Your task to perform on an android device: toggle wifi Image 0: 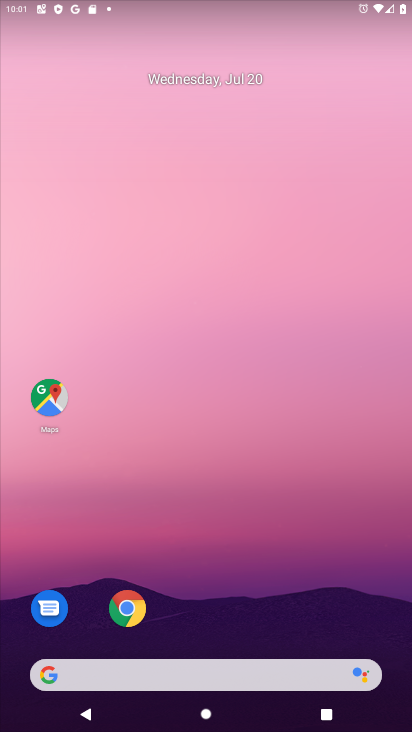
Step 0: drag from (181, 1) to (175, 629)
Your task to perform on an android device: toggle wifi Image 1: 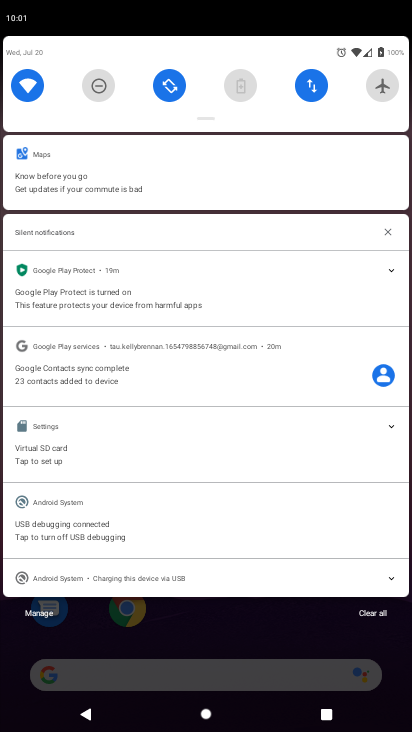
Step 1: click (22, 86)
Your task to perform on an android device: toggle wifi Image 2: 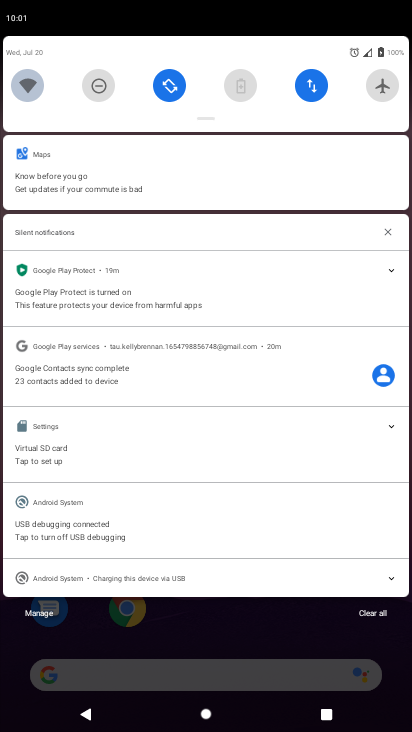
Step 2: task complete